Your task to perform on an android device: turn on wifi Image 0: 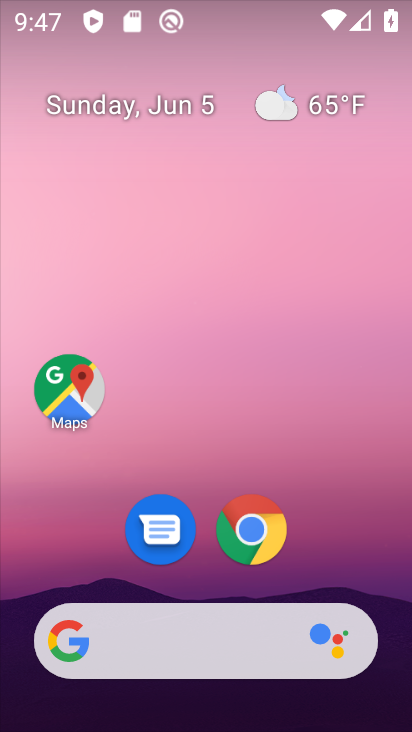
Step 0: drag from (182, 536) to (279, 33)
Your task to perform on an android device: turn on wifi Image 1: 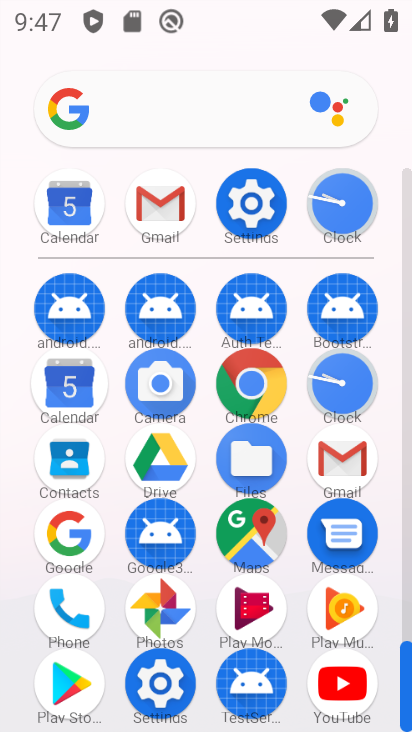
Step 1: click (265, 218)
Your task to perform on an android device: turn on wifi Image 2: 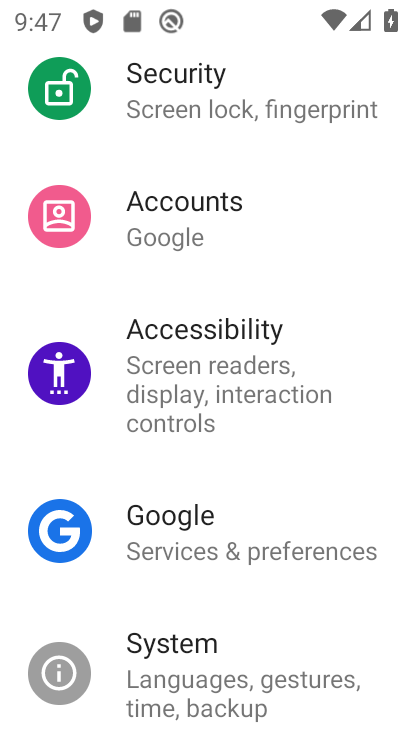
Step 2: drag from (291, 293) to (242, 702)
Your task to perform on an android device: turn on wifi Image 3: 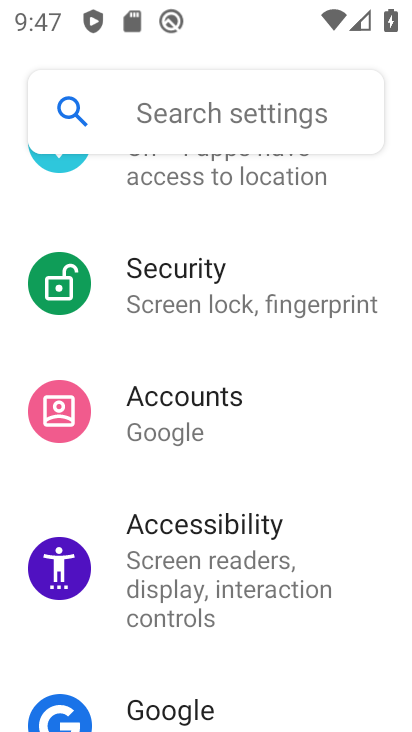
Step 3: drag from (303, 237) to (219, 688)
Your task to perform on an android device: turn on wifi Image 4: 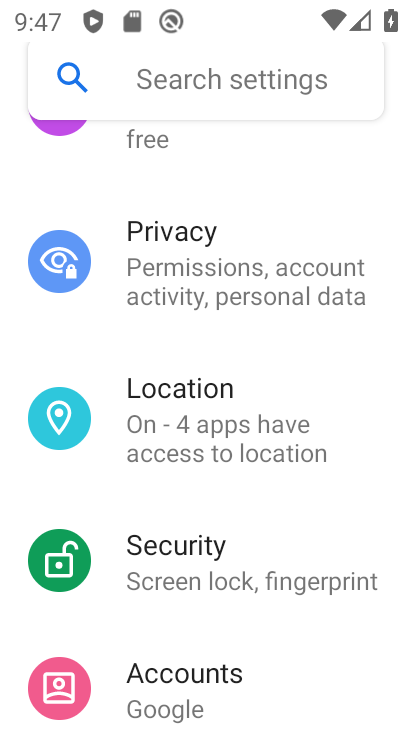
Step 4: drag from (330, 252) to (294, 722)
Your task to perform on an android device: turn on wifi Image 5: 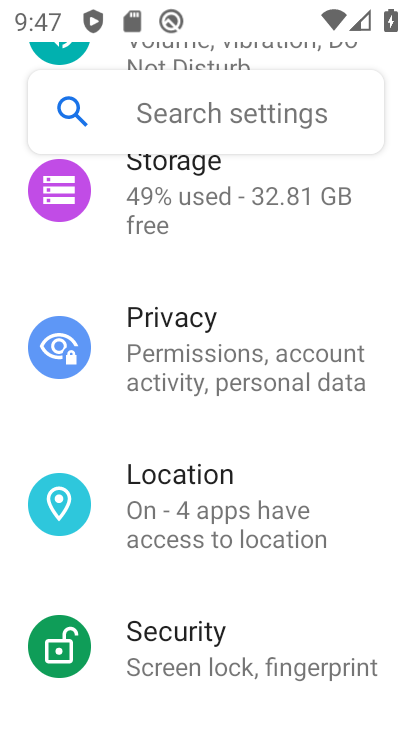
Step 5: drag from (307, 297) to (246, 720)
Your task to perform on an android device: turn on wifi Image 6: 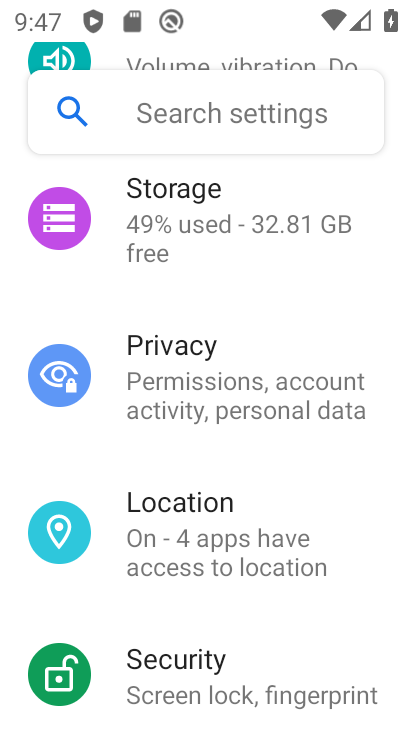
Step 6: drag from (308, 310) to (260, 703)
Your task to perform on an android device: turn on wifi Image 7: 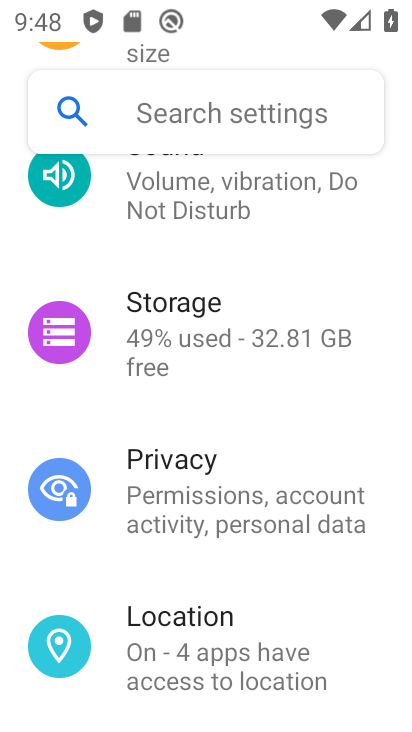
Step 7: drag from (320, 300) to (141, 677)
Your task to perform on an android device: turn on wifi Image 8: 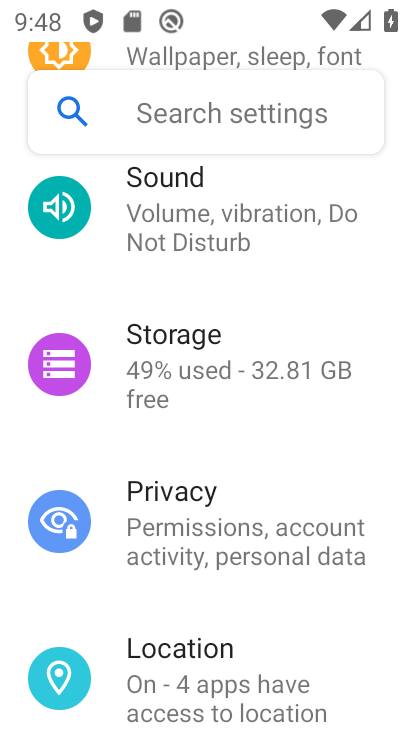
Step 8: drag from (327, 210) to (224, 688)
Your task to perform on an android device: turn on wifi Image 9: 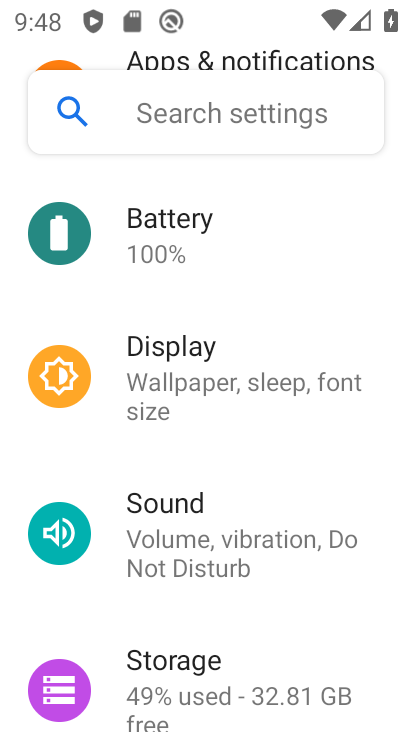
Step 9: drag from (344, 263) to (221, 686)
Your task to perform on an android device: turn on wifi Image 10: 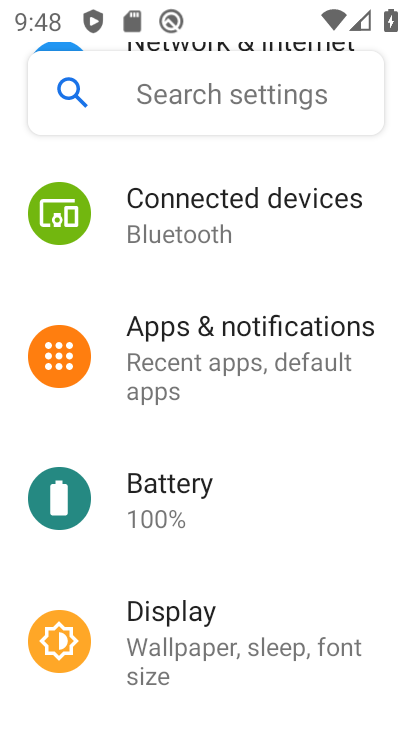
Step 10: drag from (294, 254) to (212, 699)
Your task to perform on an android device: turn on wifi Image 11: 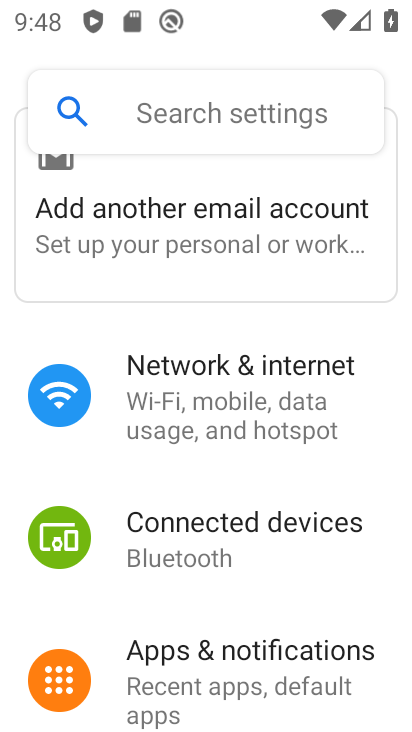
Step 11: click (273, 404)
Your task to perform on an android device: turn on wifi Image 12: 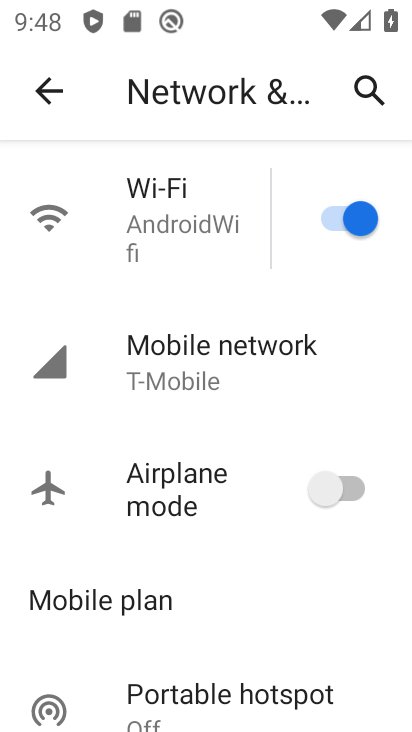
Step 12: task complete